Your task to perform on an android device: turn on showing notifications on the lock screen Image 0: 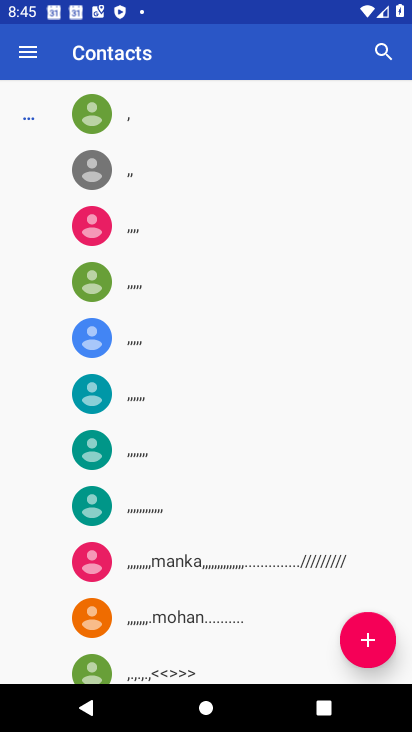
Step 0: press home button
Your task to perform on an android device: turn on showing notifications on the lock screen Image 1: 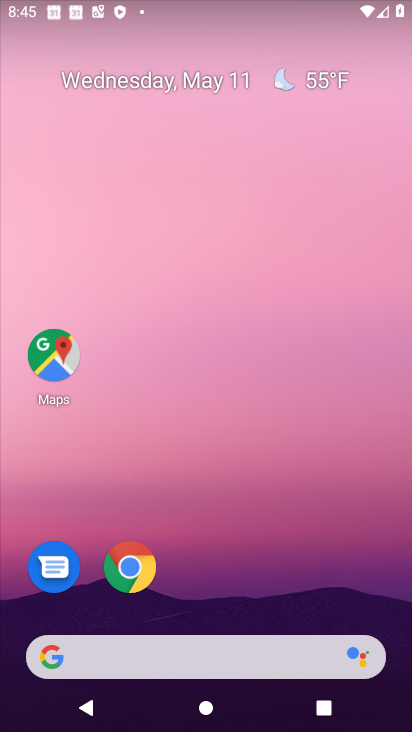
Step 1: drag from (204, 593) to (249, 1)
Your task to perform on an android device: turn on showing notifications on the lock screen Image 2: 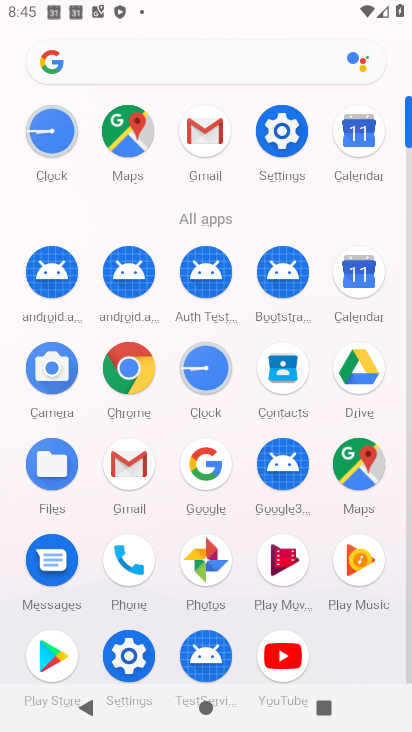
Step 2: click (287, 143)
Your task to perform on an android device: turn on showing notifications on the lock screen Image 3: 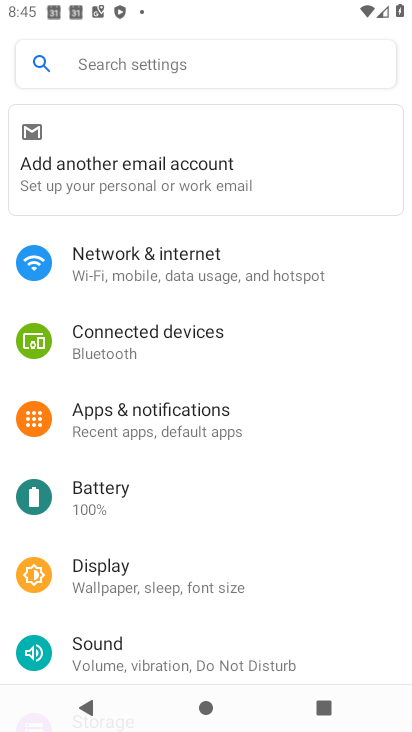
Step 3: click (186, 413)
Your task to perform on an android device: turn on showing notifications on the lock screen Image 4: 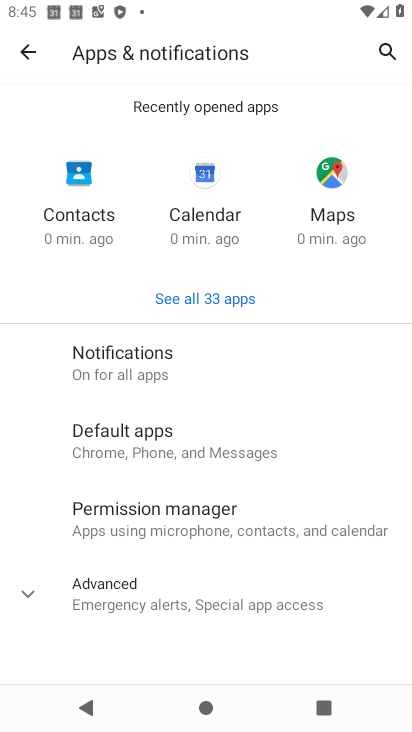
Step 4: click (144, 377)
Your task to perform on an android device: turn on showing notifications on the lock screen Image 5: 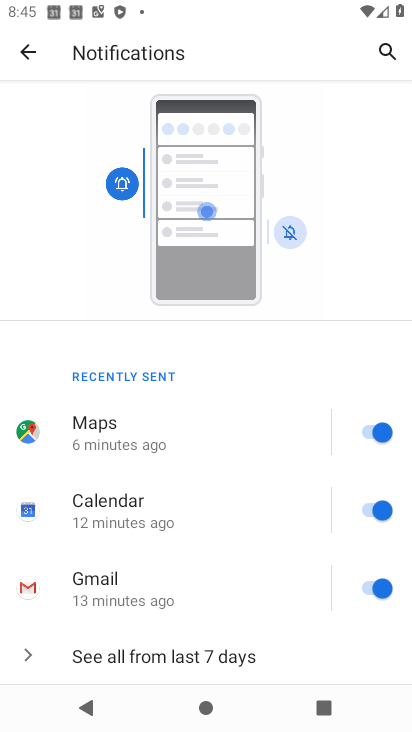
Step 5: drag from (138, 585) to (210, 147)
Your task to perform on an android device: turn on showing notifications on the lock screen Image 6: 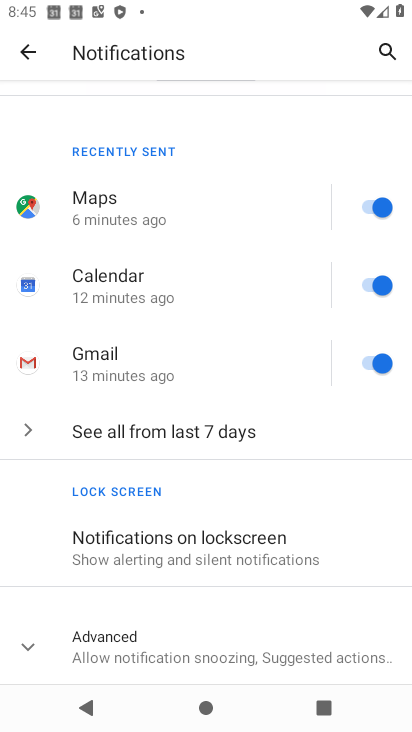
Step 6: click (176, 566)
Your task to perform on an android device: turn on showing notifications on the lock screen Image 7: 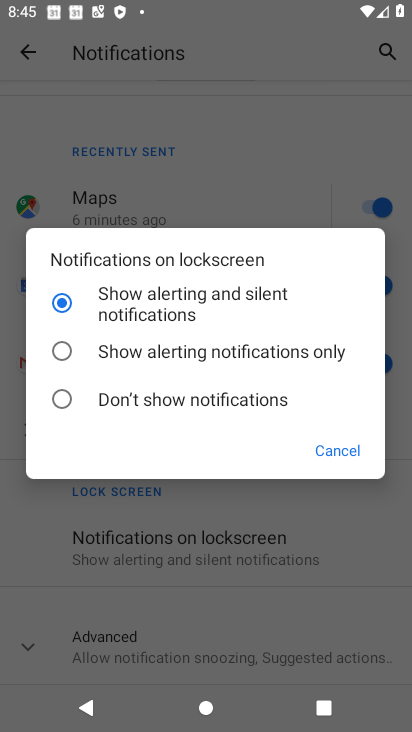
Step 7: task complete